Your task to perform on an android device: Toggle the flashlight Image 0: 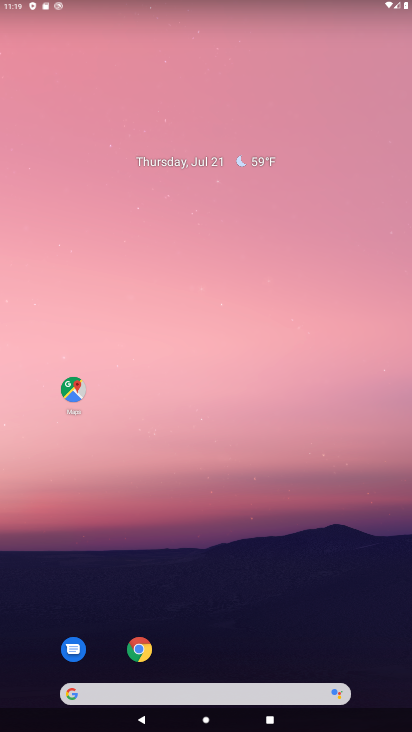
Step 0: drag from (95, 10) to (48, 198)
Your task to perform on an android device: Toggle the flashlight Image 1: 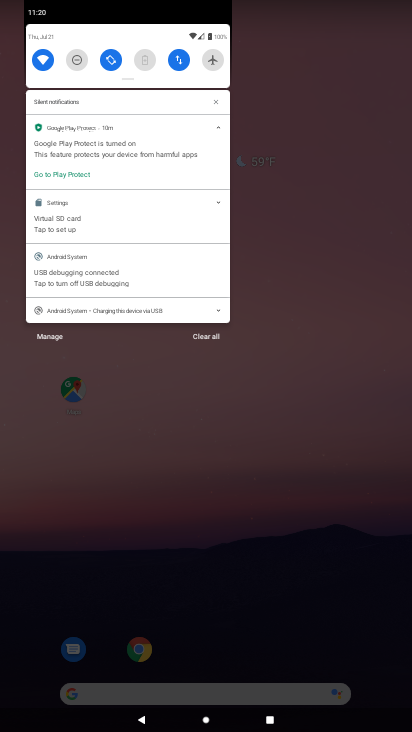
Step 1: task complete